Your task to perform on an android device: Open settings on Google Maps Image 0: 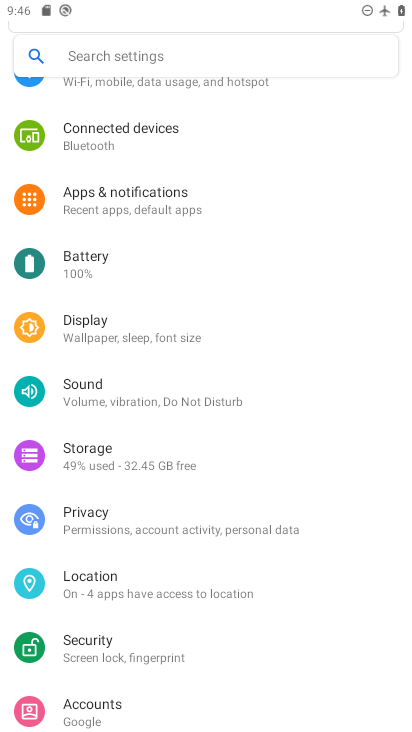
Step 0: press home button
Your task to perform on an android device: Open settings on Google Maps Image 1: 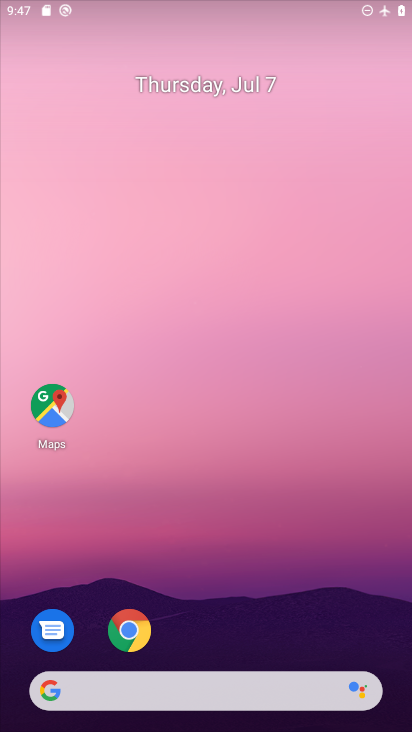
Step 1: drag from (225, 618) to (223, 485)
Your task to perform on an android device: Open settings on Google Maps Image 2: 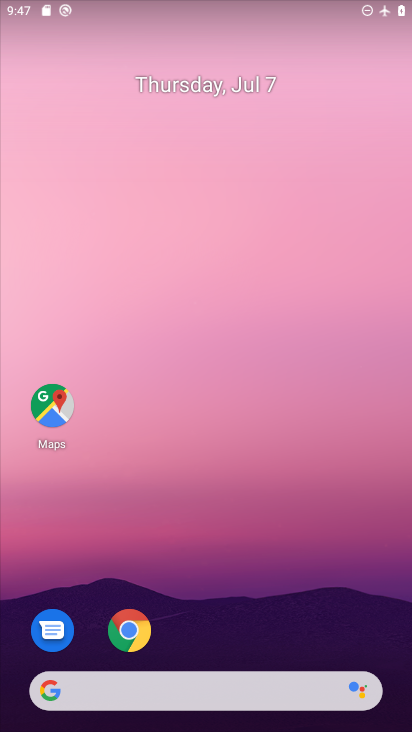
Step 2: click (60, 418)
Your task to perform on an android device: Open settings on Google Maps Image 3: 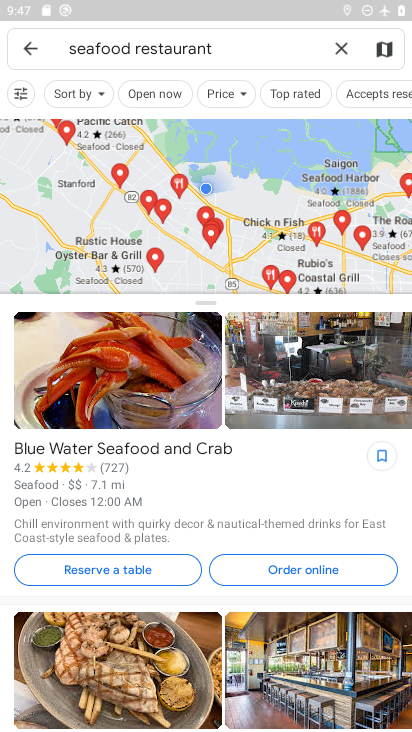
Step 3: click (24, 51)
Your task to perform on an android device: Open settings on Google Maps Image 4: 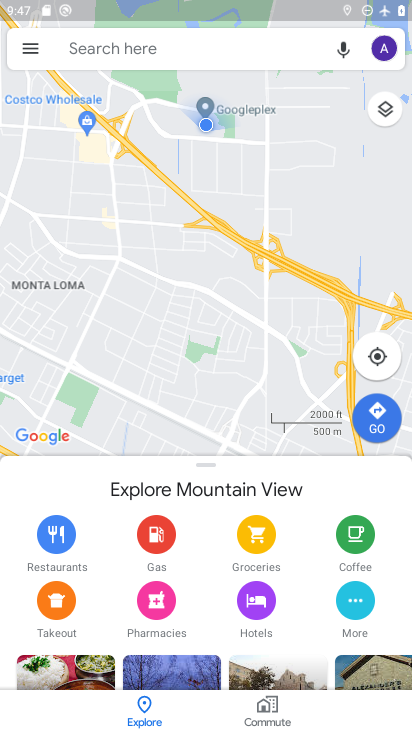
Step 4: click (28, 51)
Your task to perform on an android device: Open settings on Google Maps Image 5: 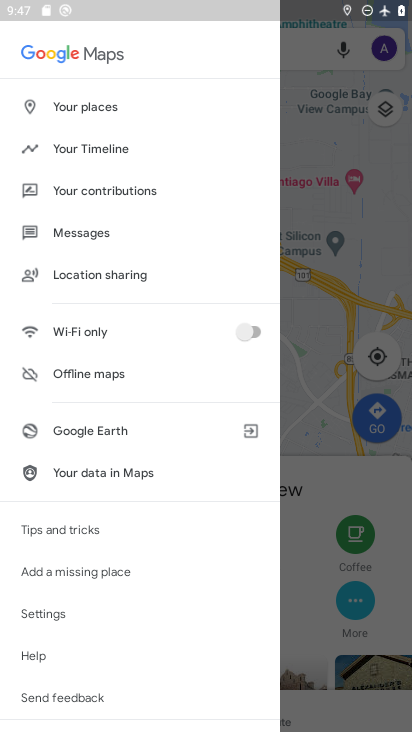
Step 5: click (64, 620)
Your task to perform on an android device: Open settings on Google Maps Image 6: 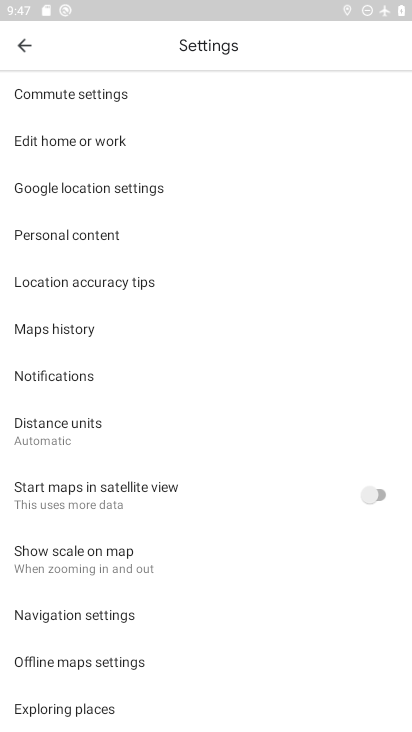
Step 6: task complete